Your task to perform on an android device: Check the weather Image 0: 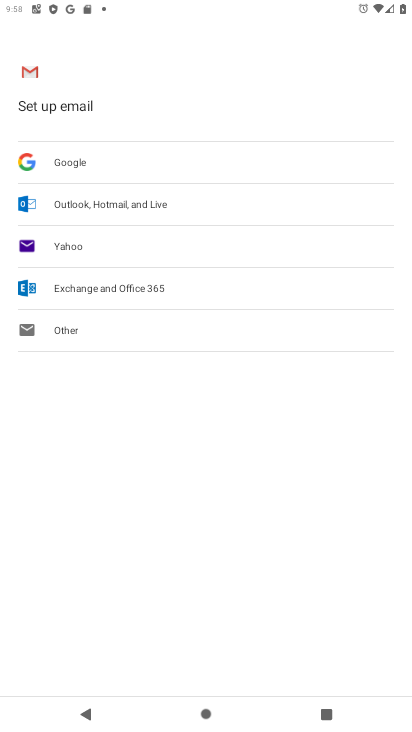
Step 0: click (54, 395)
Your task to perform on an android device: Check the weather Image 1: 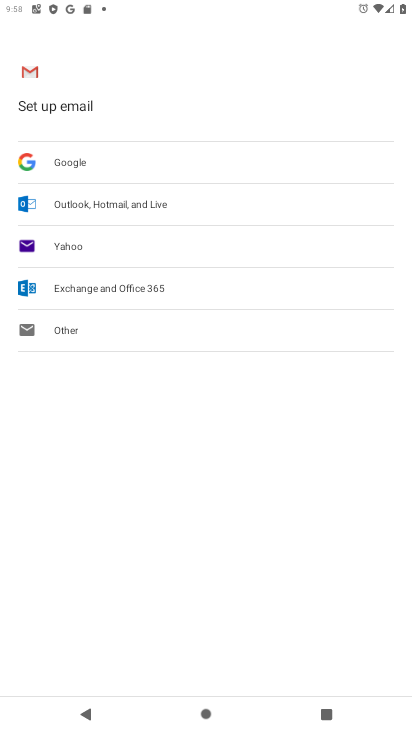
Step 1: press home button
Your task to perform on an android device: Check the weather Image 2: 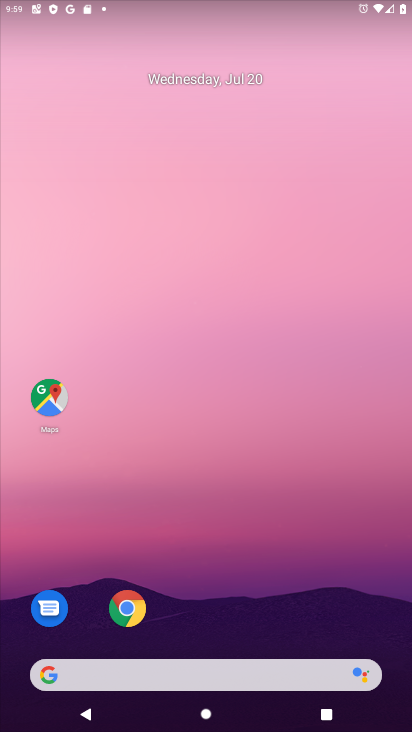
Step 2: click (190, 666)
Your task to perform on an android device: Check the weather Image 3: 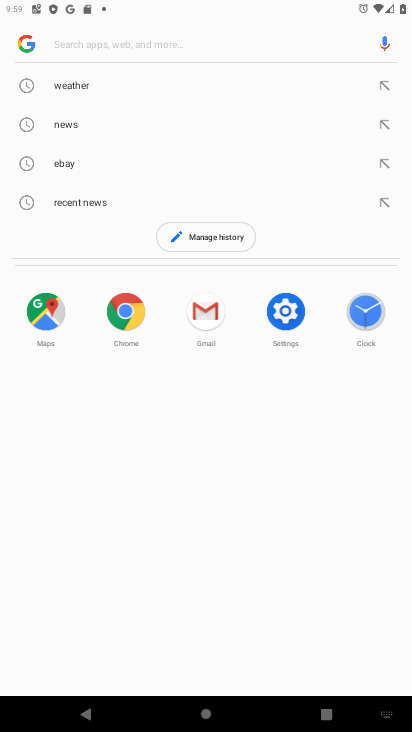
Step 3: click (101, 79)
Your task to perform on an android device: Check the weather Image 4: 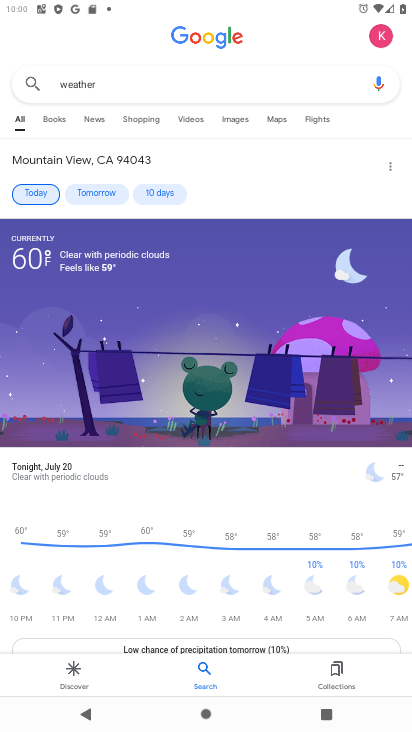
Step 4: task complete